Your task to perform on an android device: Show me popular games on the Play Store Image 0: 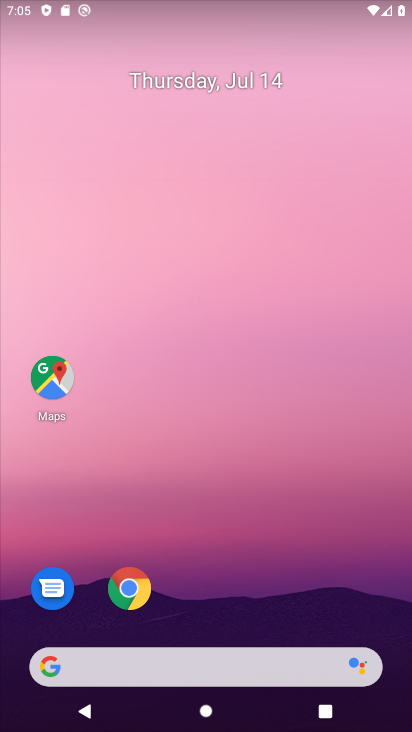
Step 0: drag from (376, 630) to (260, 6)
Your task to perform on an android device: Show me popular games on the Play Store Image 1: 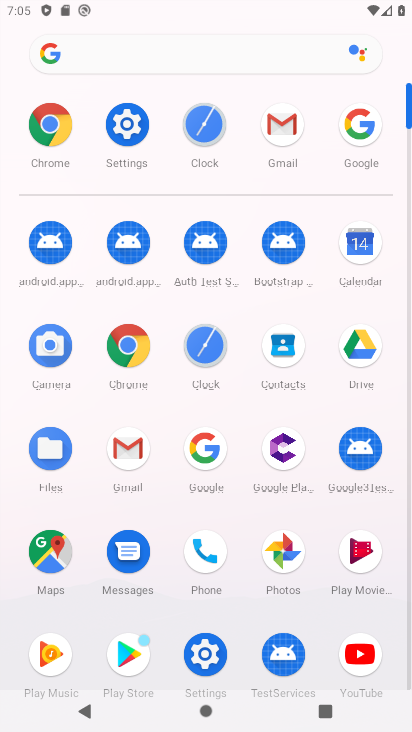
Step 1: click (112, 661)
Your task to perform on an android device: Show me popular games on the Play Store Image 2: 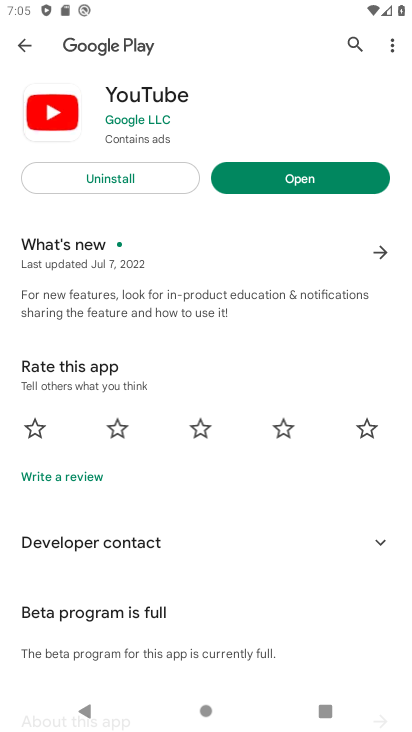
Step 2: press back button
Your task to perform on an android device: Show me popular games on the Play Store Image 3: 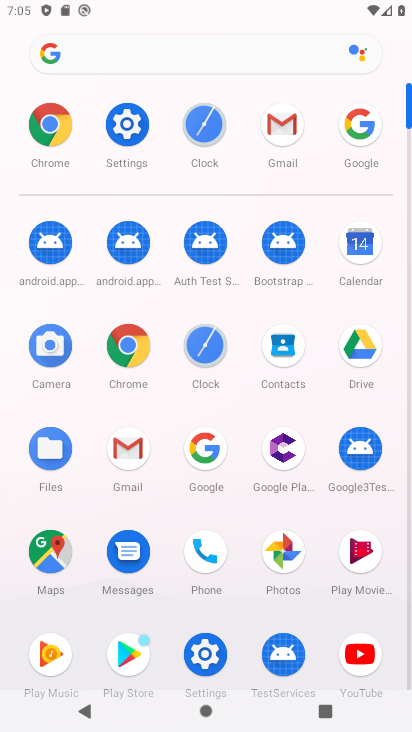
Step 3: click (127, 640)
Your task to perform on an android device: Show me popular games on the Play Store Image 4: 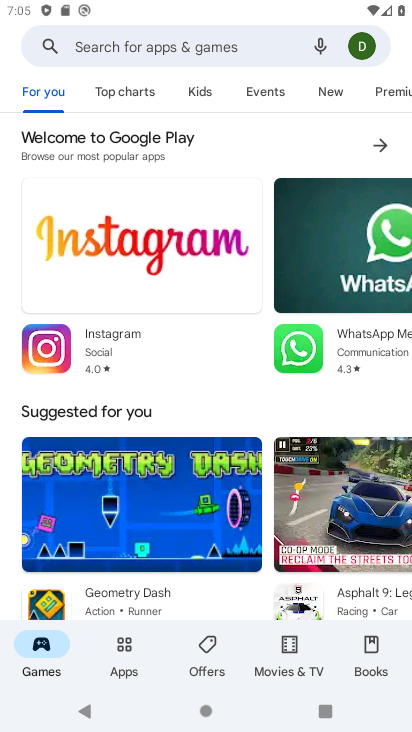
Step 4: click (142, 53)
Your task to perform on an android device: Show me popular games on the Play Store Image 5: 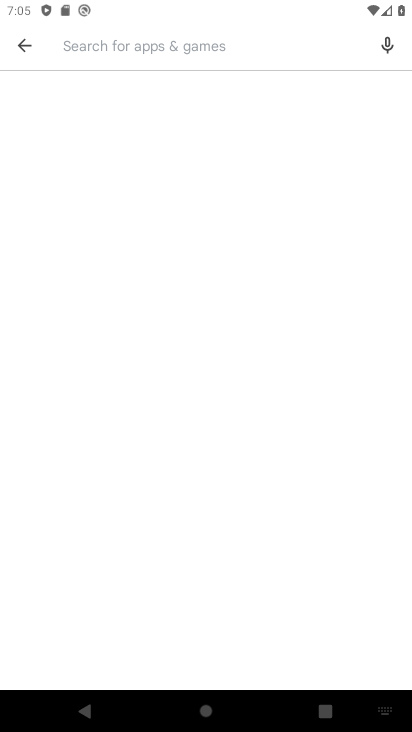
Step 5: type "popular games"
Your task to perform on an android device: Show me popular games on the Play Store Image 6: 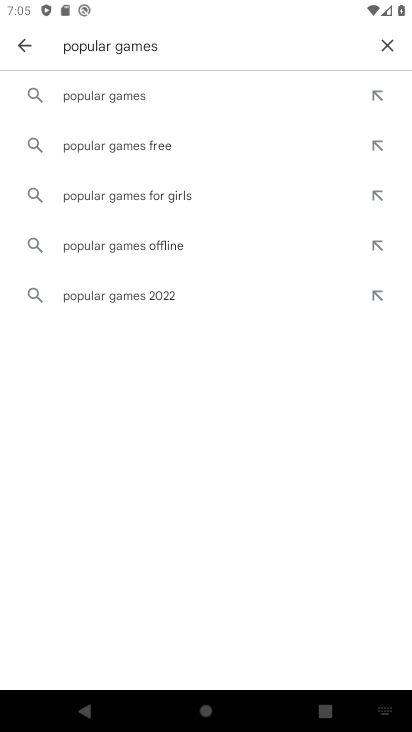
Step 6: click (114, 96)
Your task to perform on an android device: Show me popular games on the Play Store Image 7: 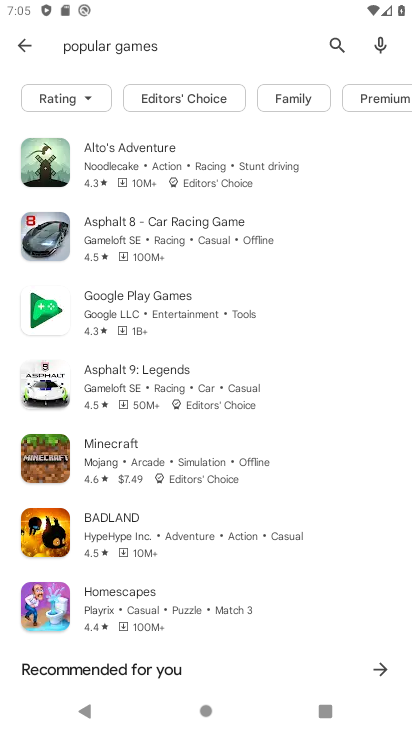
Step 7: task complete